Your task to perform on an android device: Open Chrome and go to the settings page Image 0: 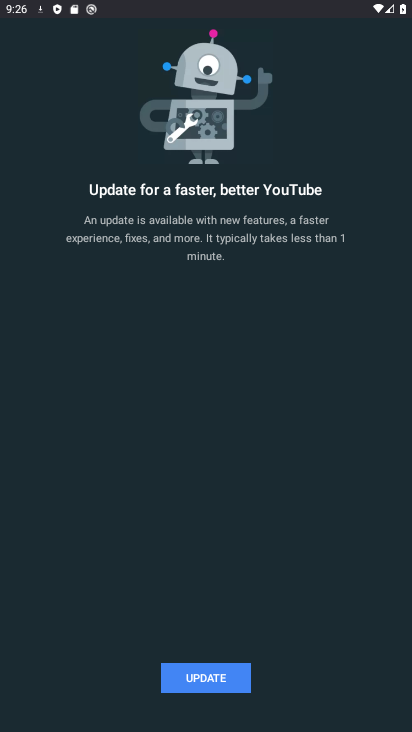
Step 0: press home button
Your task to perform on an android device: Open Chrome and go to the settings page Image 1: 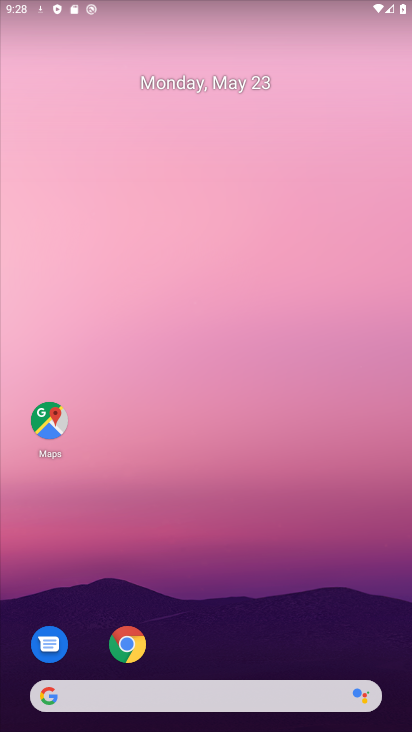
Step 1: drag from (281, 671) to (304, 295)
Your task to perform on an android device: Open Chrome and go to the settings page Image 2: 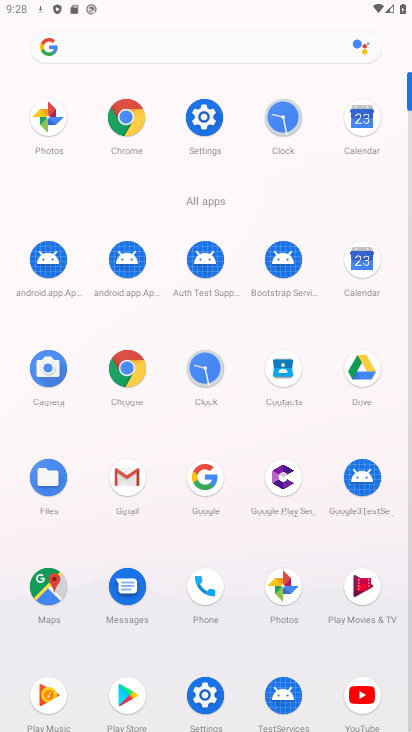
Step 2: click (143, 379)
Your task to perform on an android device: Open Chrome and go to the settings page Image 3: 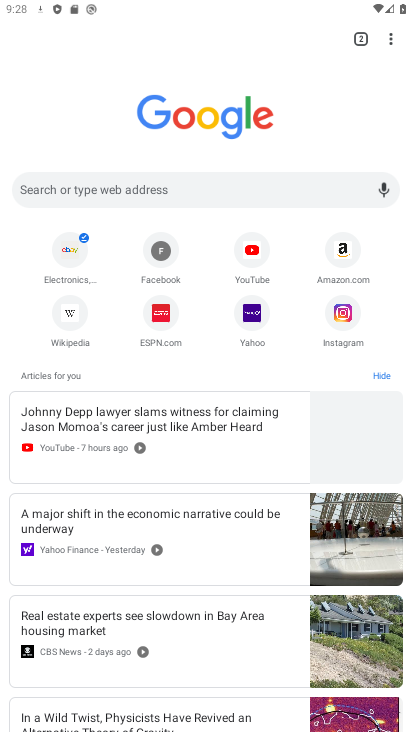
Step 3: click (387, 52)
Your task to perform on an android device: Open Chrome and go to the settings page Image 4: 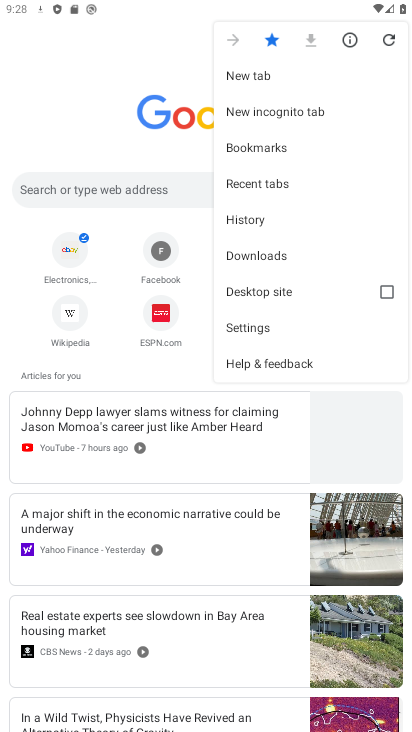
Step 4: click (255, 318)
Your task to perform on an android device: Open Chrome and go to the settings page Image 5: 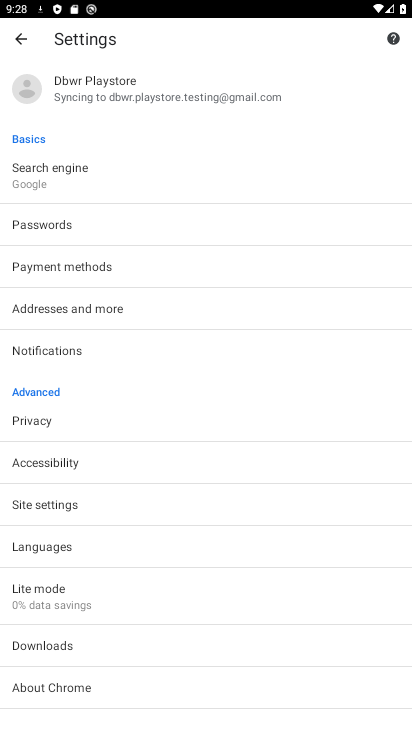
Step 5: task complete